Your task to perform on an android device: Open privacy settings Image 0: 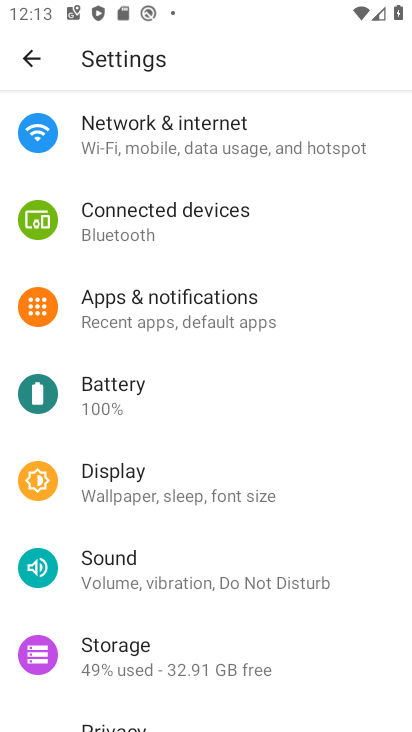
Step 0: drag from (353, 679) to (333, 417)
Your task to perform on an android device: Open privacy settings Image 1: 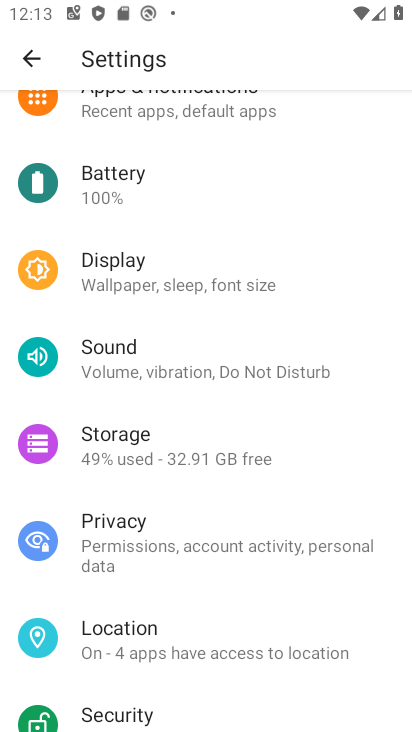
Step 1: click (149, 523)
Your task to perform on an android device: Open privacy settings Image 2: 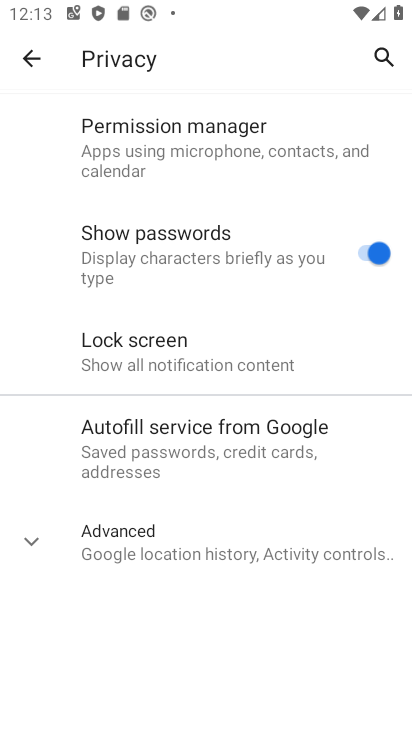
Step 2: task complete